Your task to perform on an android device: open app "Google Pay: Save, Pay, Manage" (install if not already installed) Image 0: 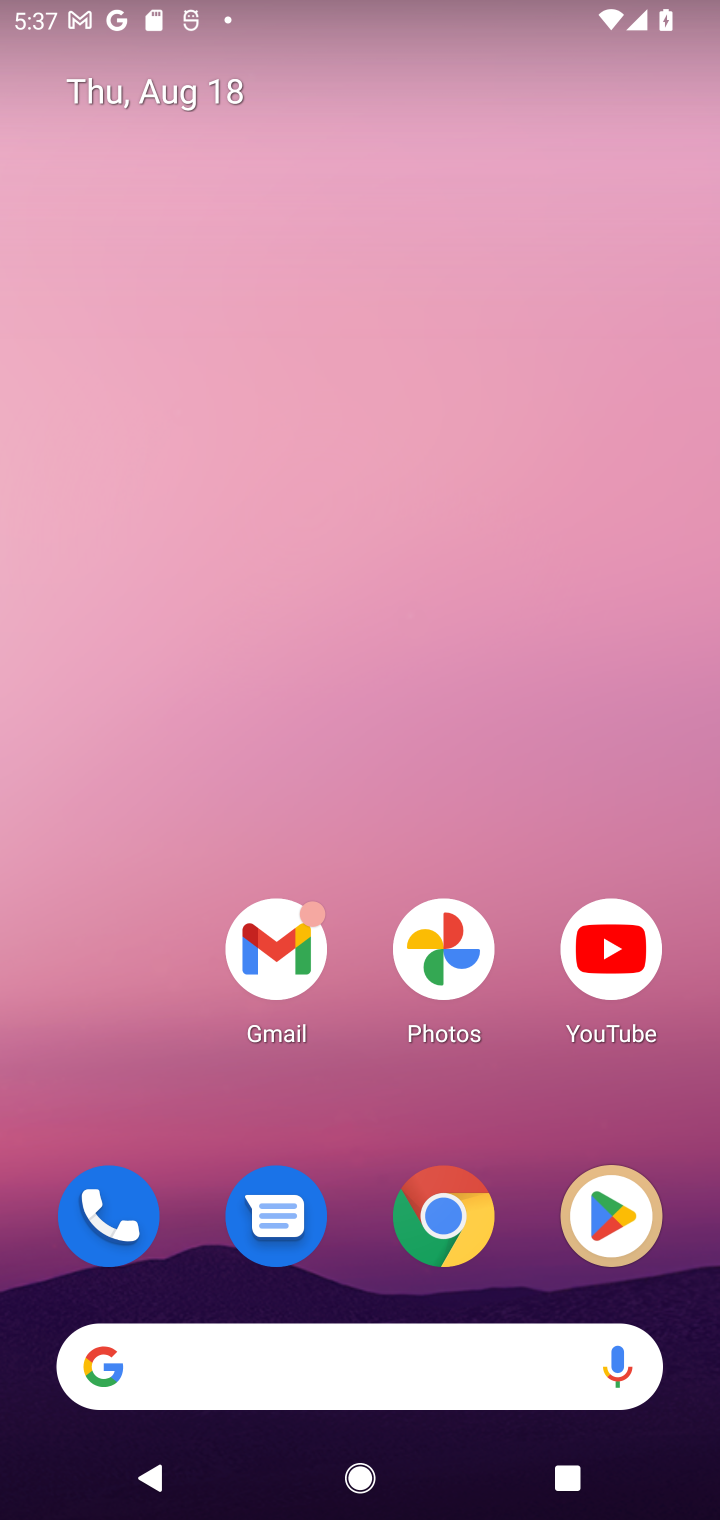
Step 0: click (612, 1212)
Your task to perform on an android device: open app "Google Pay: Save, Pay, Manage" (install if not already installed) Image 1: 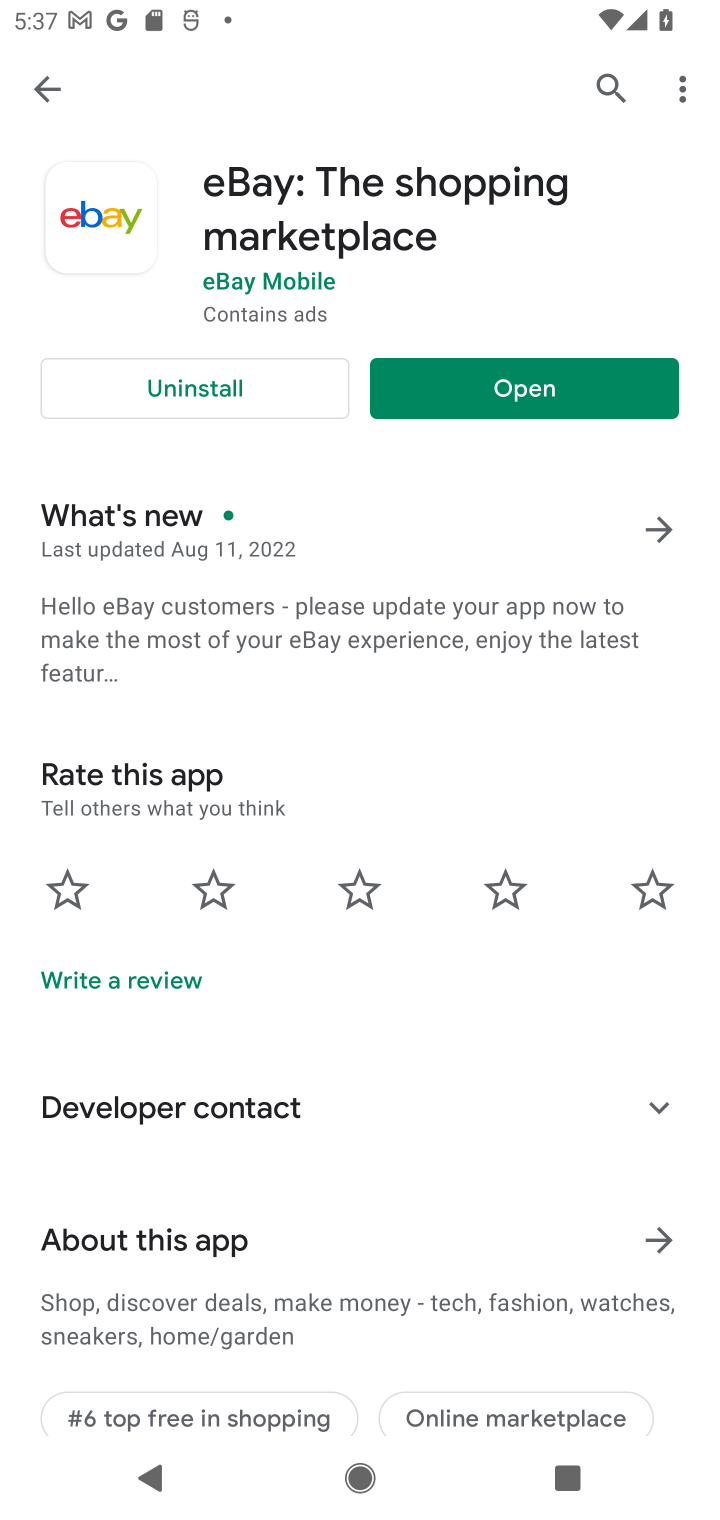
Step 1: click (595, 76)
Your task to perform on an android device: open app "Google Pay: Save, Pay, Manage" (install if not already installed) Image 2: 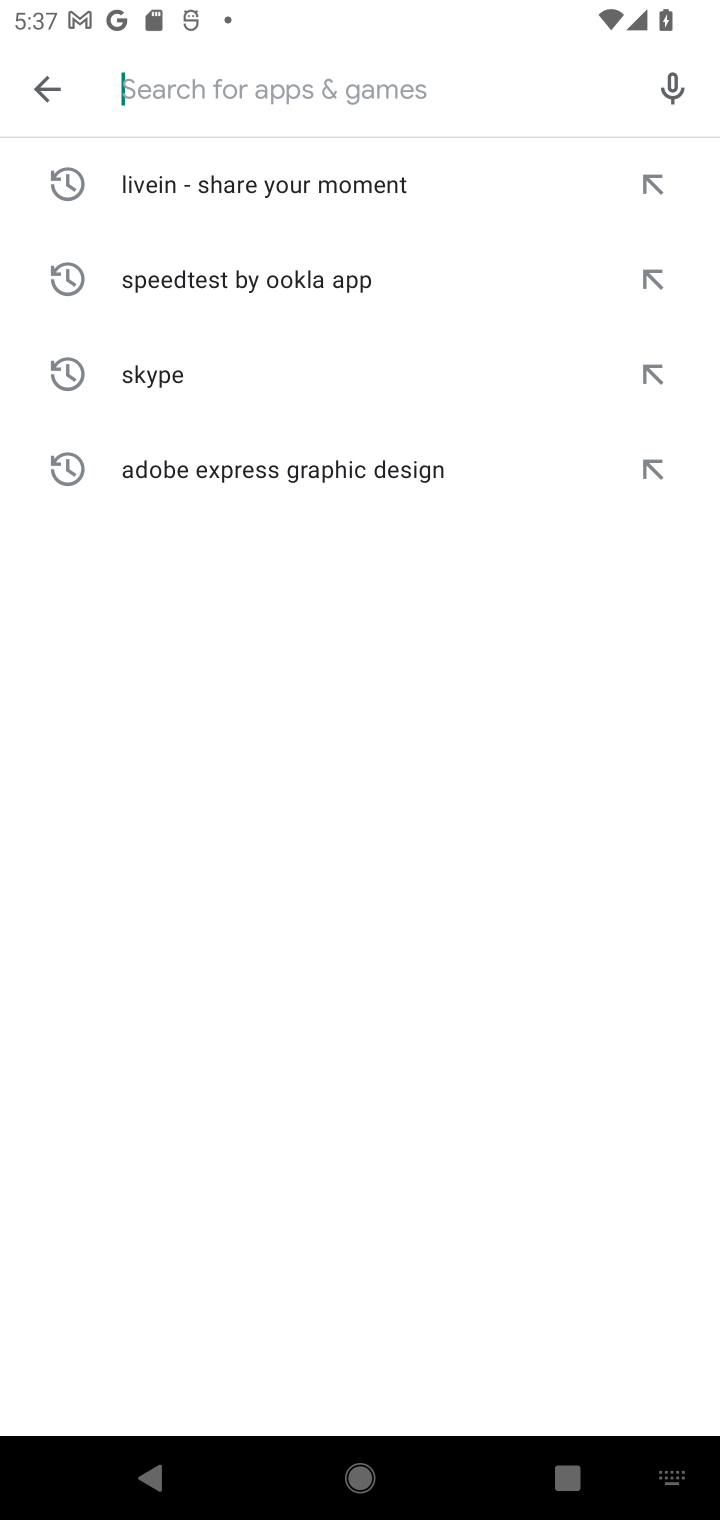
Step 2: type "Google Pay: Save, Pay, Manage"
Your task to perform on an android device: open app "Google Pay: Save, Pay, Manage" (install if not already installed) Image 3: 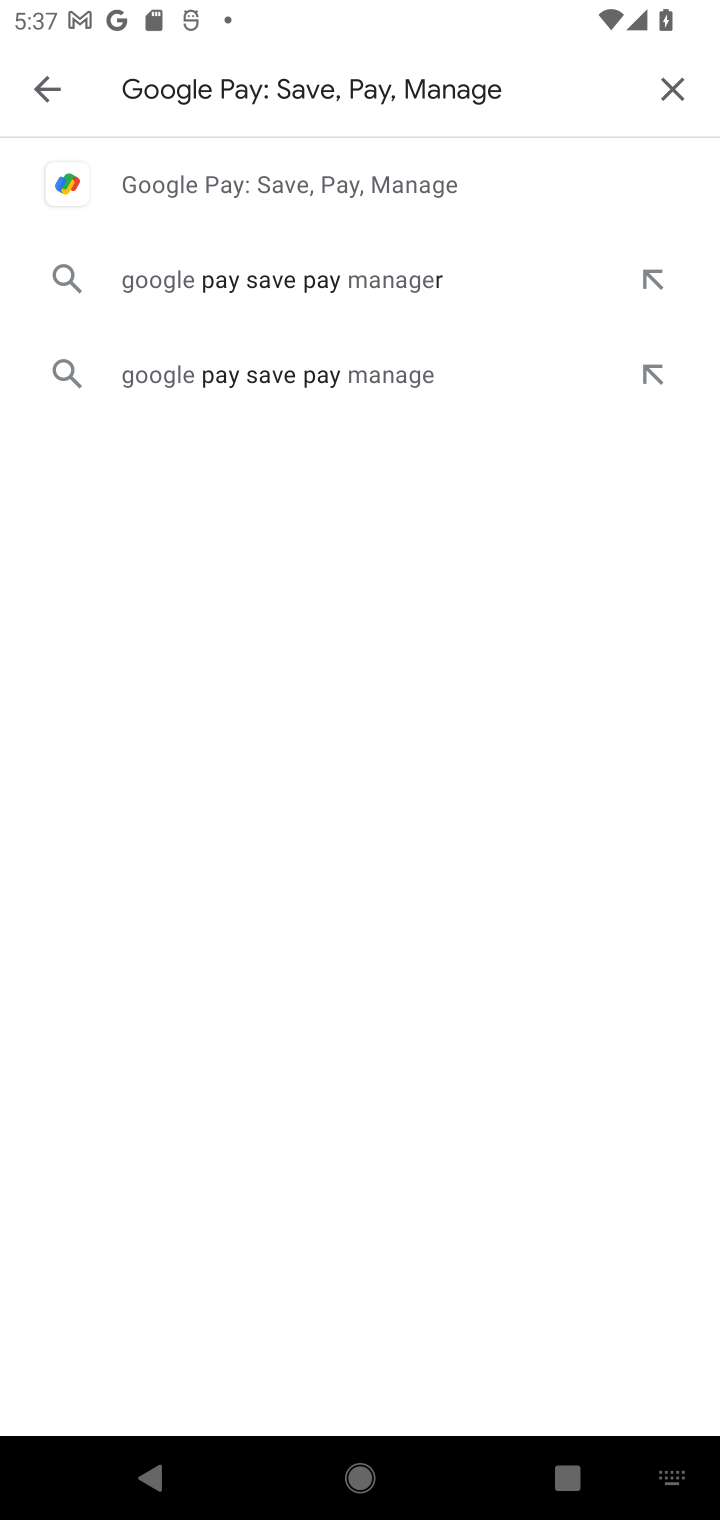
Step 3: click (218, 183)
Your task to perform on an android device: open app "Google Pay: Save, Pay, Manage" (install if not already installed) Image 4: 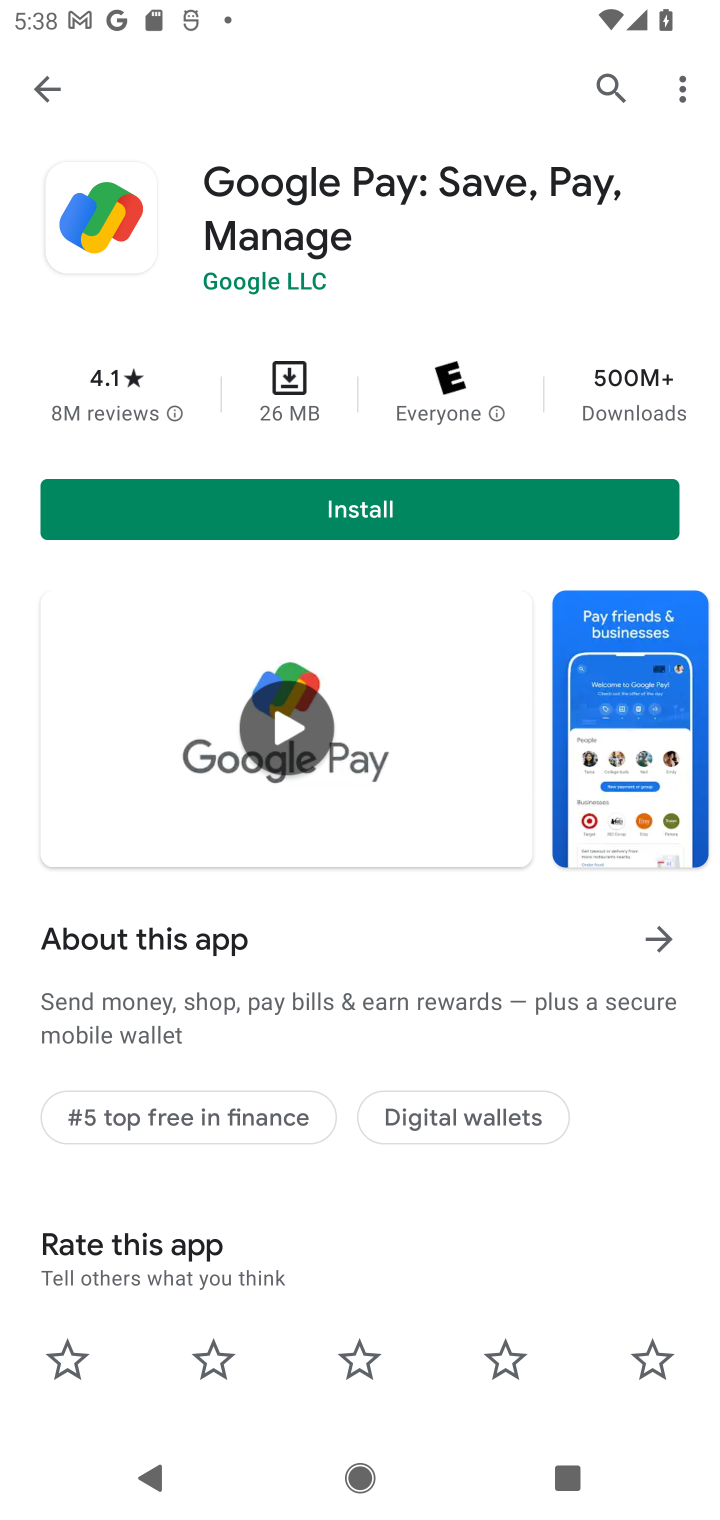
Step 4: click (349, 499)
Your task to perform on an android device: open app "Google Pay: Save, Pay, Manage" (install if not already installed) Image 5: 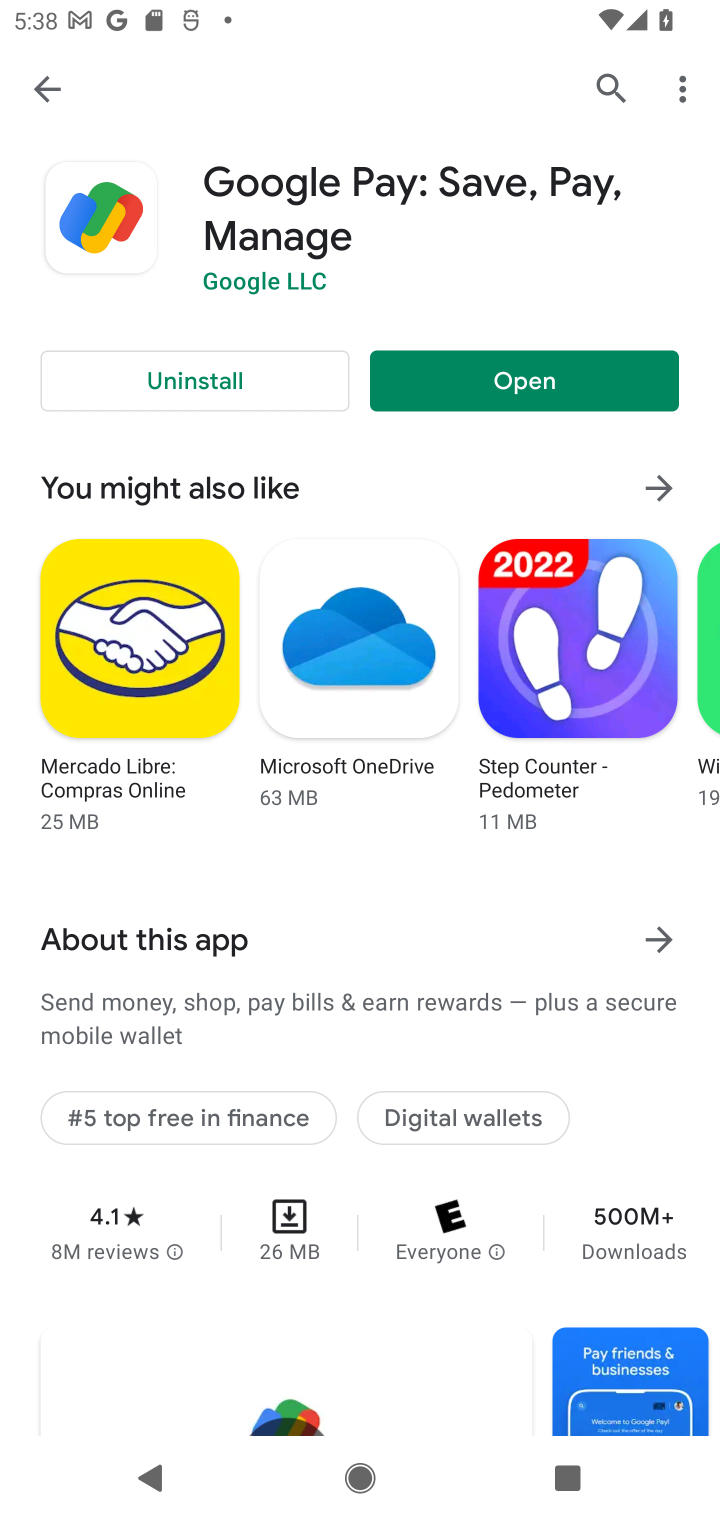
Step 5: click (525, 383)
Your task to perform on an android device: open app "Google Pay: Save, Pay, Manage" (install if not already installed) Image 6: 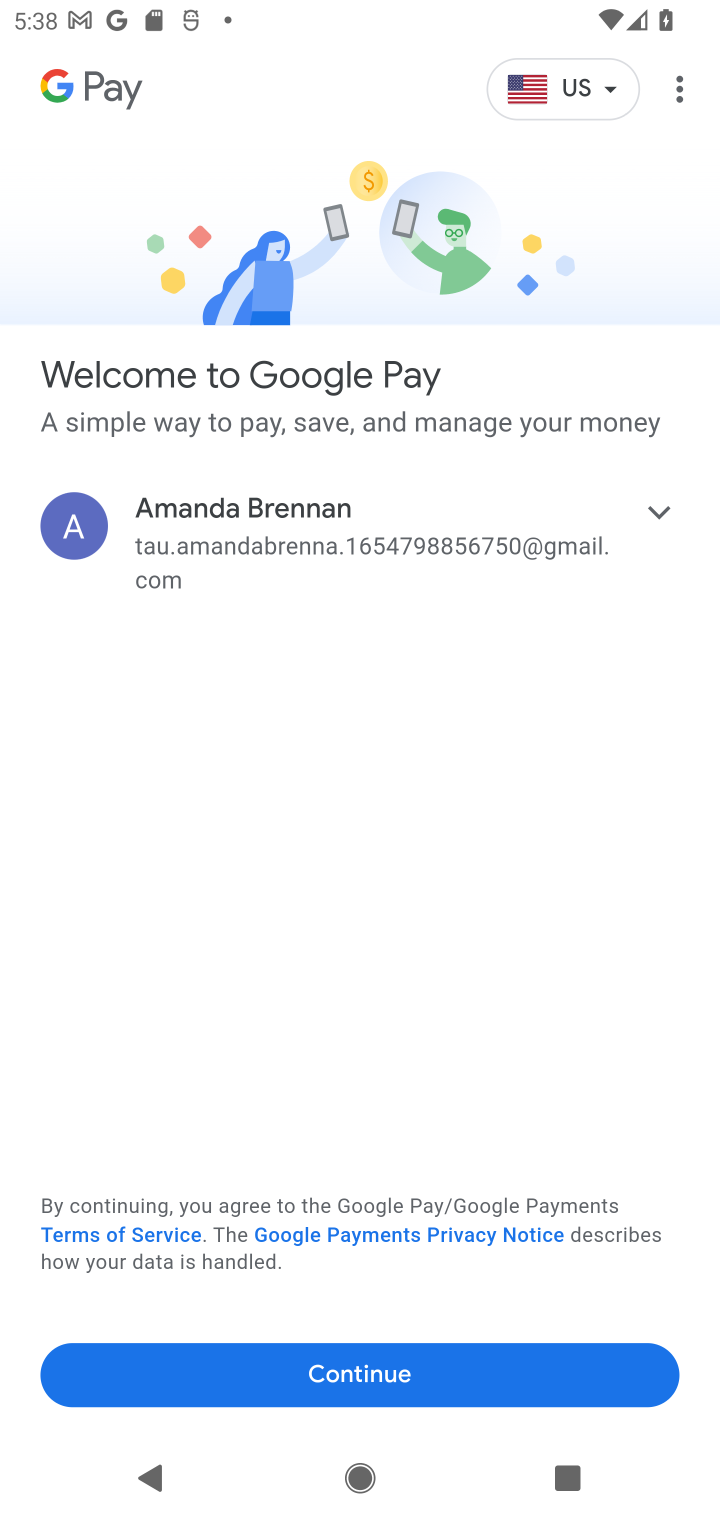
Step 6: click (350, 1373)
Your task to perform on an android device: open app "Google Pay: Save, Pay, Manage" (install if not already installed) Image 7: 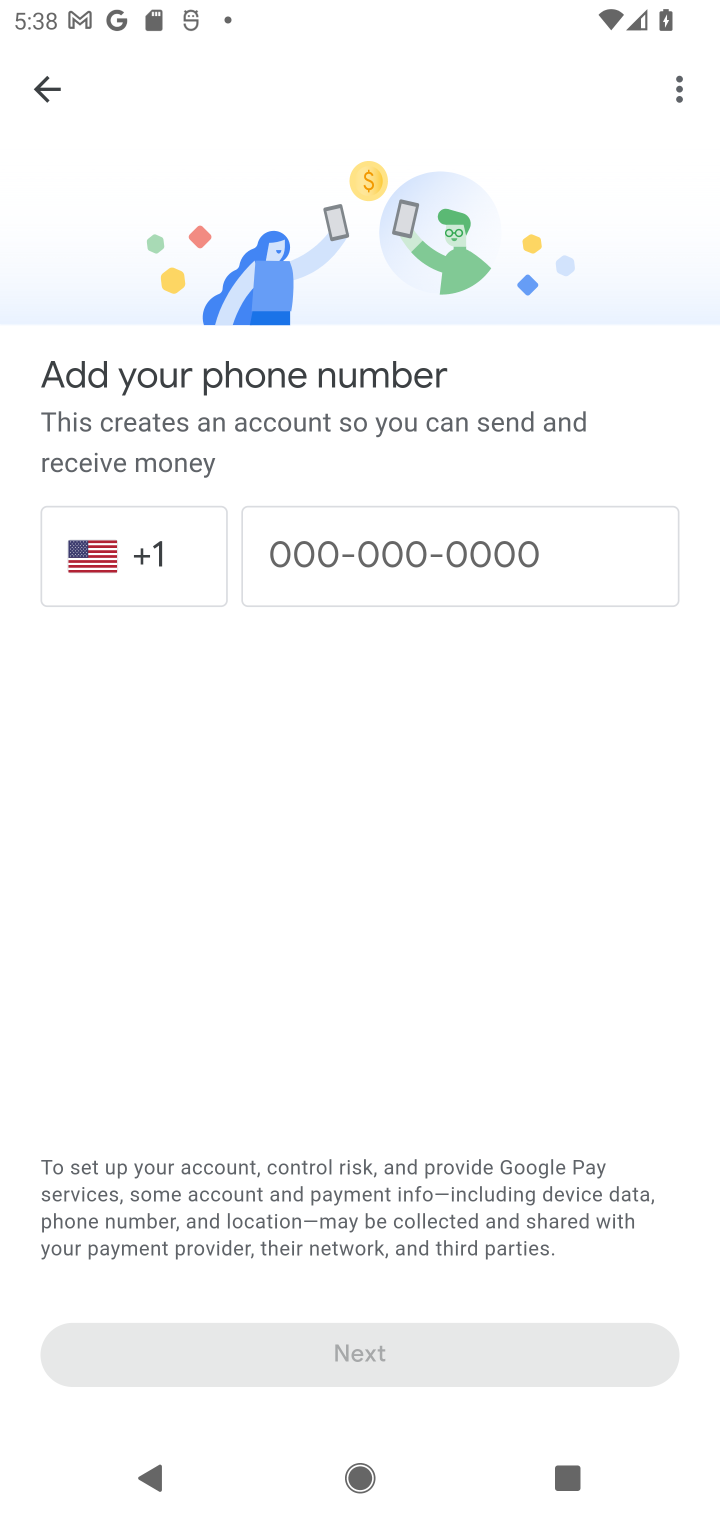
Step 7: task complete